Your task to perform on an android device: Search for pizza restaurants on Maps Image 0: 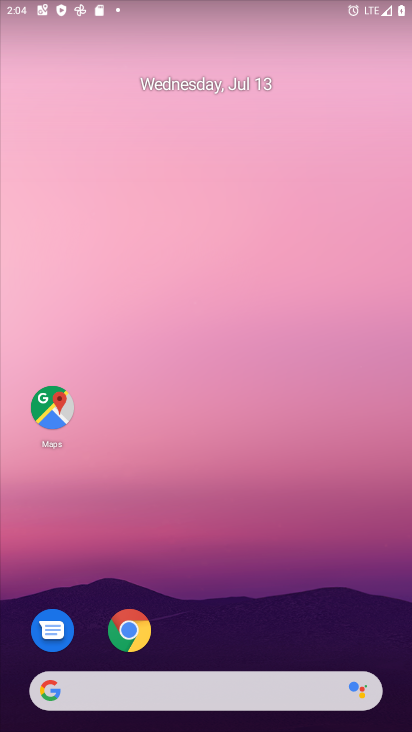
Step 0: drag from (383, 669) to (99, 22)
Your task to perform on an android device: Search for pizza restaurants on Maps Image 1: 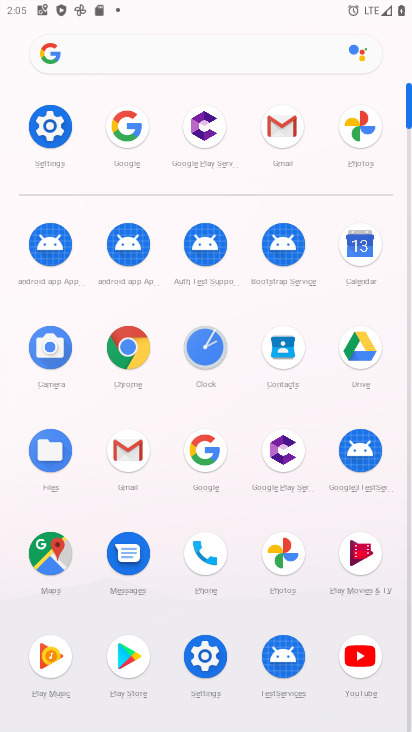
Step 1: click (36, 563)
Your task to perform on an android device: Search for pizza restaurants on Maps Image 2: 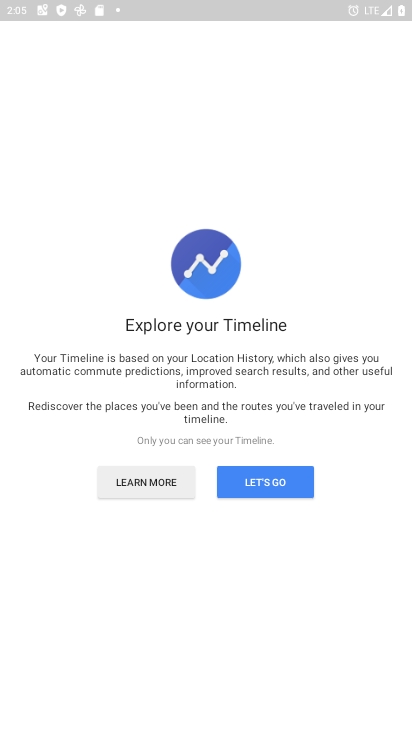
Step 2: press back button
Your task to perform on an android device: Search for pizza restaurants on Maps Image 3: 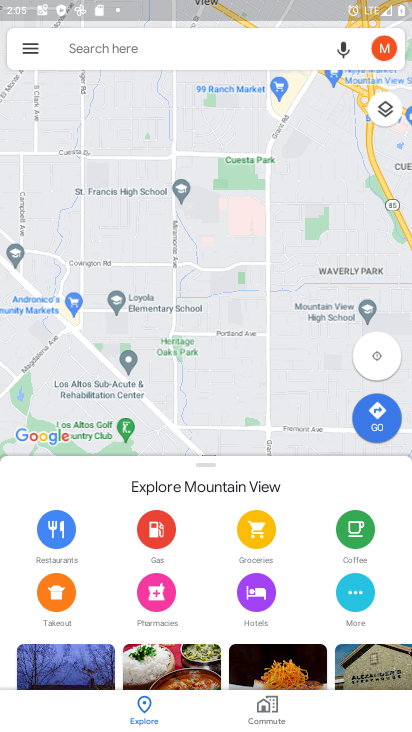
Step 3: click (100, 43)
Your task to perform on an android device: Search for pizza restaurants on Maps Image 4: 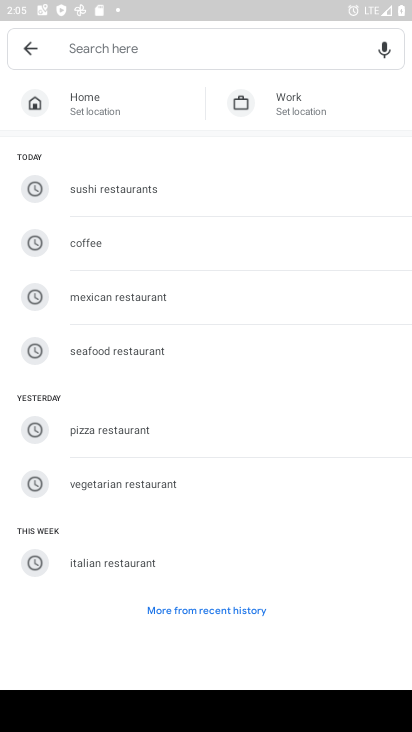
Step 4: click (105, 425)
Your task to perform on an android device: Search for pizza restaurants on Maps Image 5: 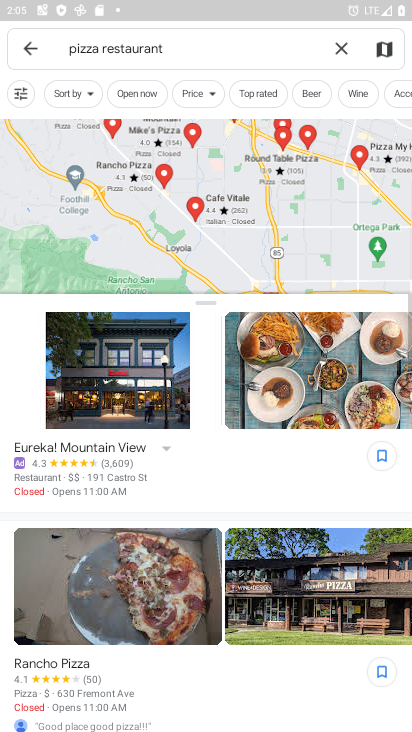
Step 5: task complete